Your task to perform on an android device: Open Google Maps and go to "Timeline" Image 0: 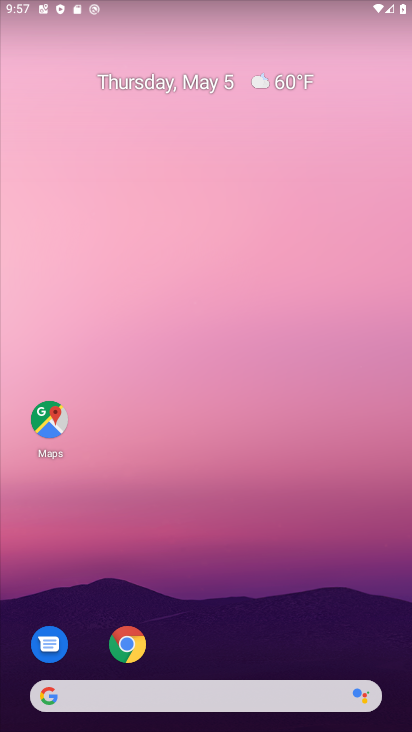
Step 0: click (44, 420)
Your task to perform on an android device: Open Google Maps and go to "Timeline" Image 1: 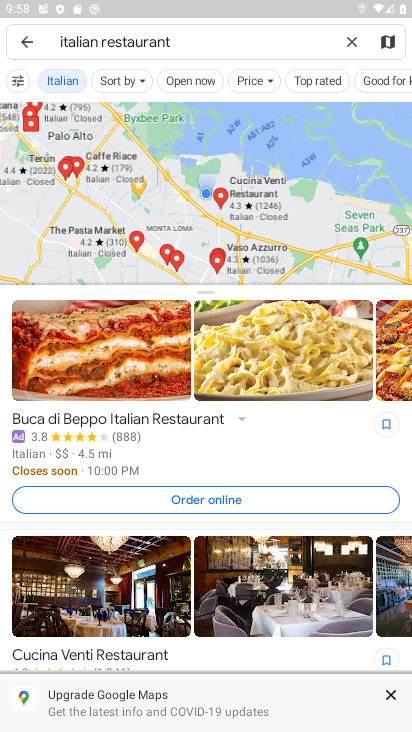
Step 1: click (346, 42)
Your task to perform on an android device: Open Google Maps and go to "Timeline" Image 2: 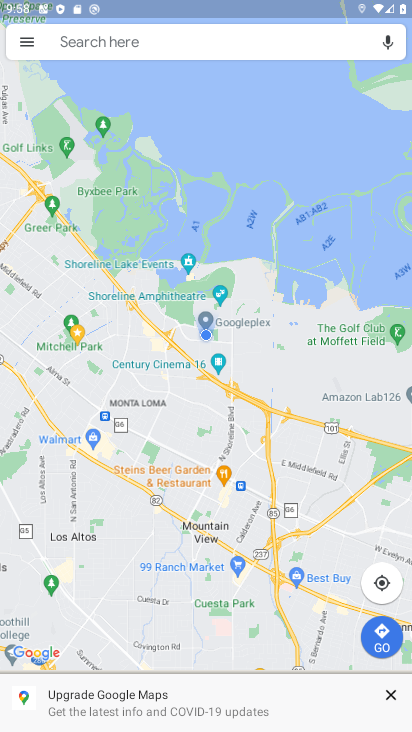
Step 2: click (22, 45)
Your task to perform on an android device: Open Google Maps and go to "Timeline" Image 3: 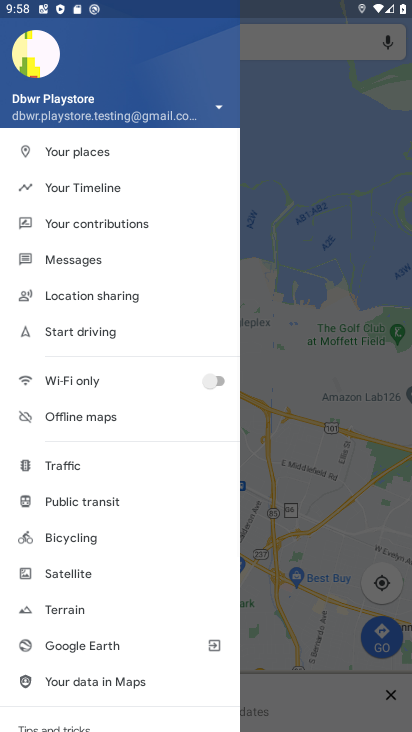
Step 3: click (92, 186)
Your task to perform on an android device: Open Google Maps and go to "Timeline" Image 4: 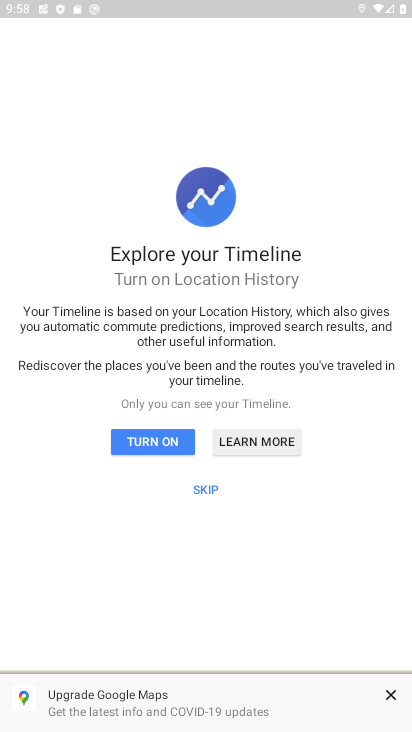
Step 4: click (215, 480)
Your task to perform on an android device: Open Google Maps and go to "Timeline" Image 5: 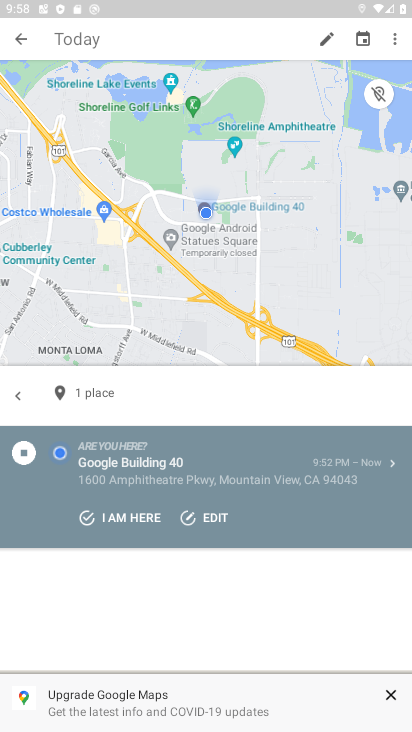
Step 5: task complete